Your task to perform on an android device: Open maps Image 0: 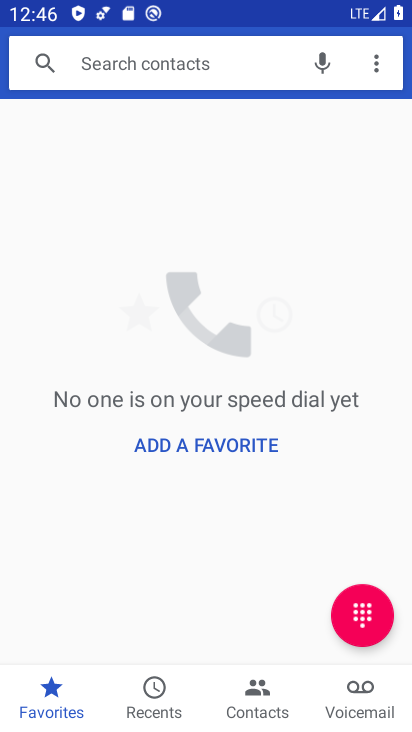
Step 0: press home button
Your task to perform on an android device: Open maps Image 1: 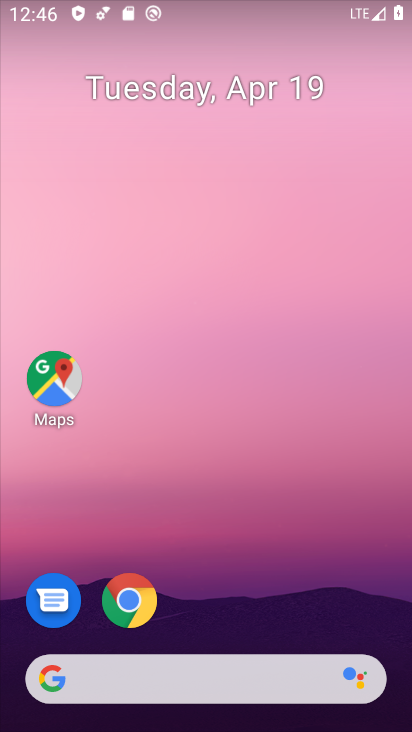
Step 1: drag from (198, 636) to (280, 32)
Your task to perform on an android device: Open maps Image 2: 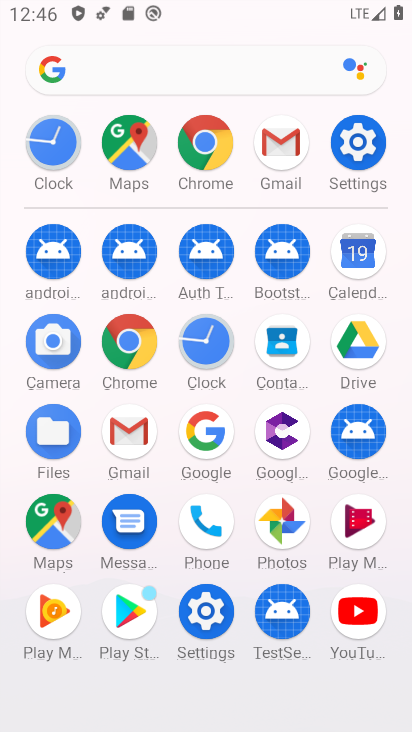
Step 2: click (42, 531)
Your task to perform on an android device: Open maps Image 3: 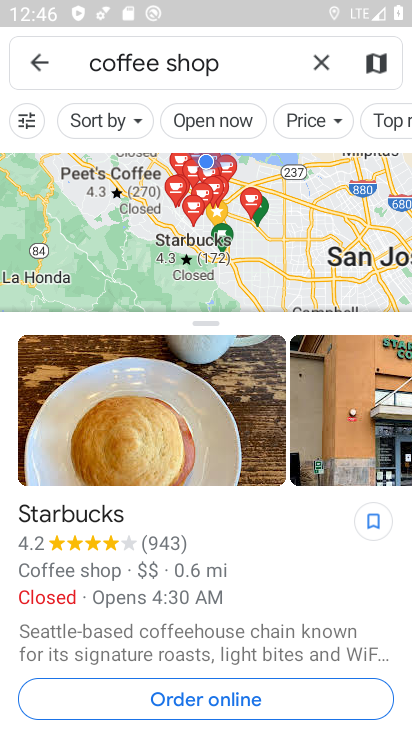
Step 3: task complete